Your task to perform on an android device: What's on my calendar tomorrow? Image 0: 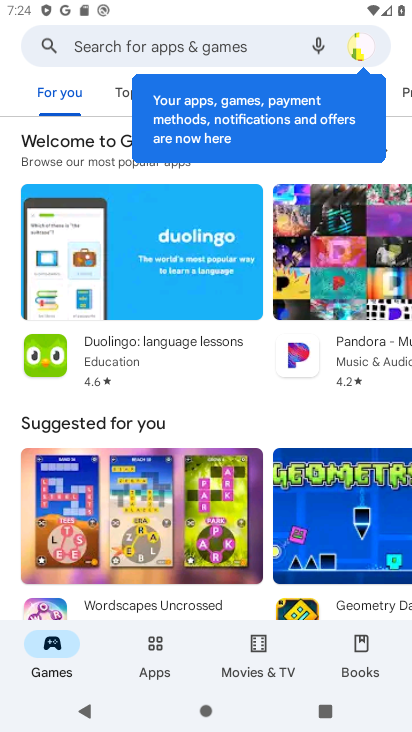
Step 0: press home button
Your task to perform on an android device: What's on my calendar tomorrow? Image 1: 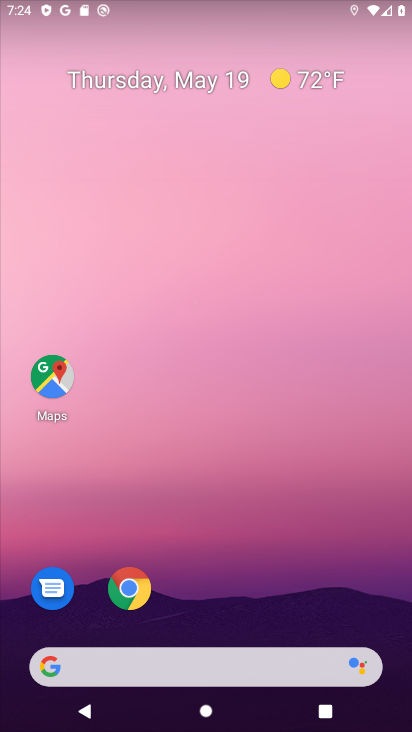
Step 1: drag from (307, 621) to (289, 116)
Your task to perform on an android device: What's on my calendar tomorrow? Image 2: 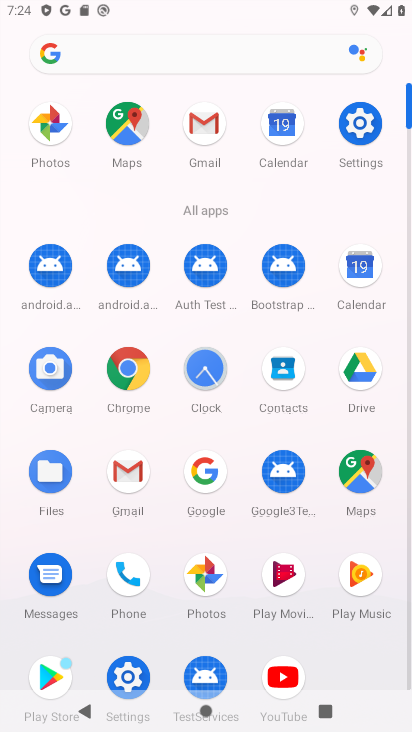
Step 2: click (363, 281)
Your task to perform on an android device: What's on my calendar tomorrow? Image 3: 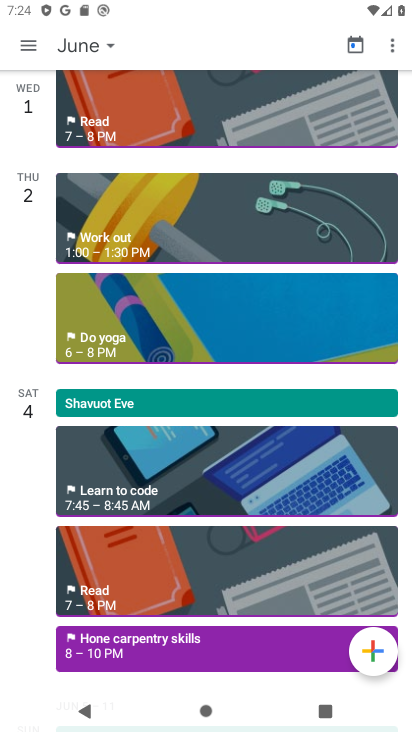
Step 3: click (28, 45)
Your task to perform on an android device: What's on my calendar tomorrow? Image 4: 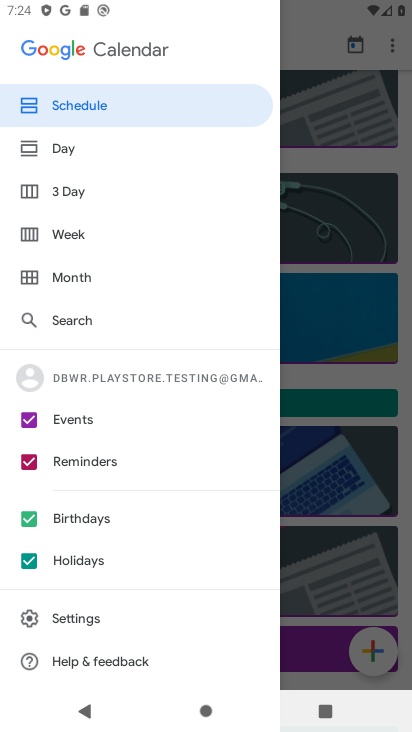
Step 4: click (86, 139)
Your task to perform on an android device: What's on my calendar tomorrow? Image 5: 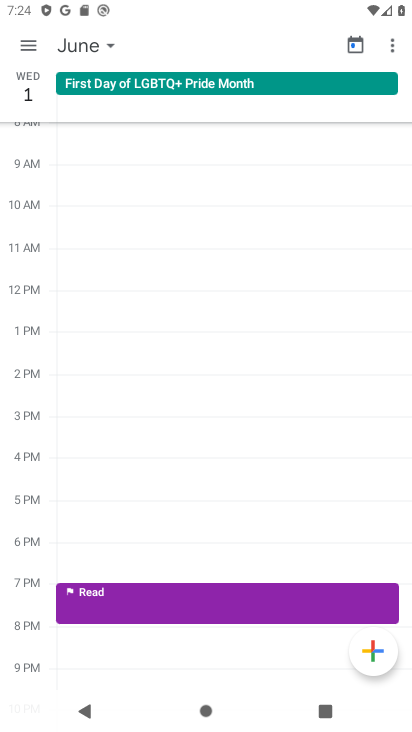
Step 5: click (76, 45)
Your task to perform on an android device: What's on my calendar tomorrow? Image 6: 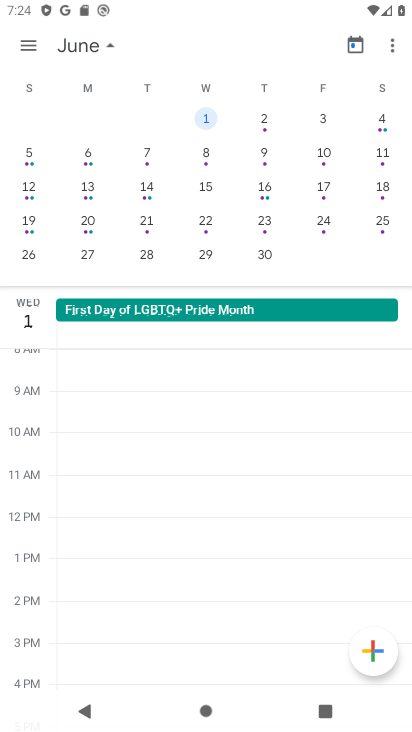
Step 6: drag from (125, 158) to (395, 304)
Your task to perform on an android device: What's on my calendar tomorrow? Image 7: 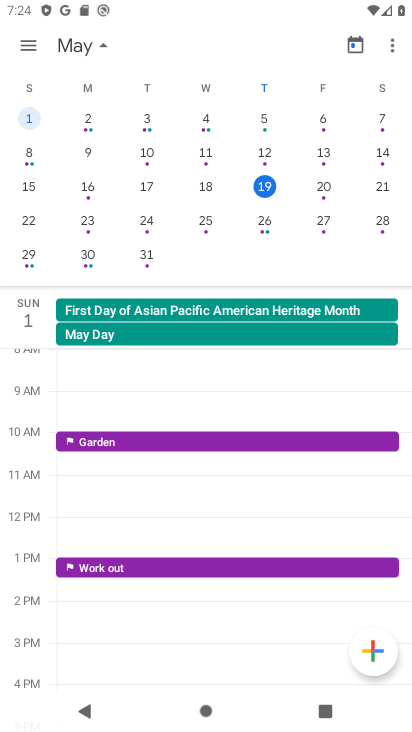
Step 7: click (329, 188)
Your task to perform on an android device: What's on my calendar tomorrow? Image 8: 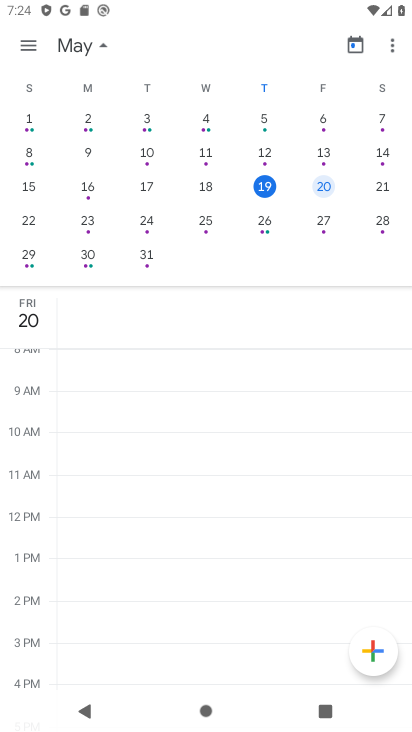
Step 8: task complete